Your task to perform on an android device: uninstall "PlayWell" Image 0: 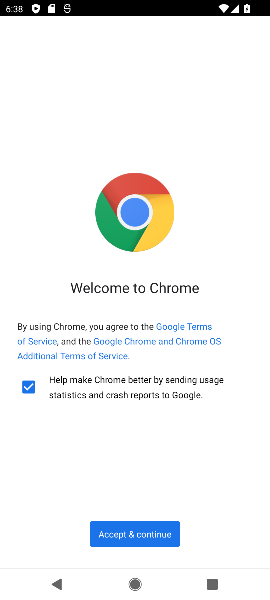
Step 0: press home button
Your task to perform on an android device: uninstall "PlayWell" Image 1: 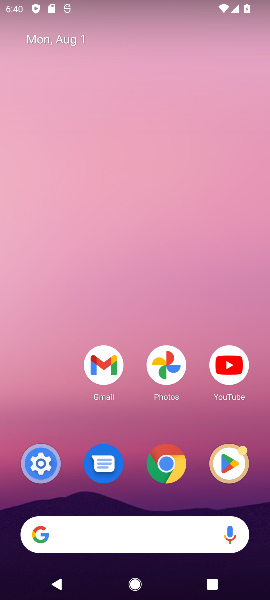
Step 1: click (234, 463)
Your task to perform on an android device: uninstall "PlayWell" Image 2: 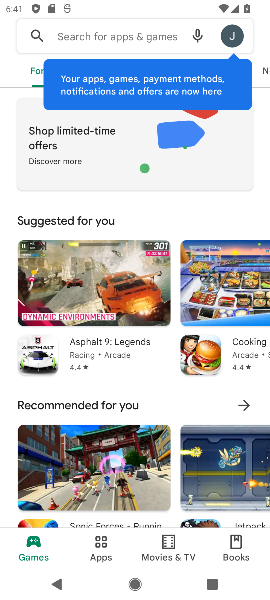
Step 2: click (154, 35)
Your task to perform on an android device: uninstall "PlayWell" Image 3: 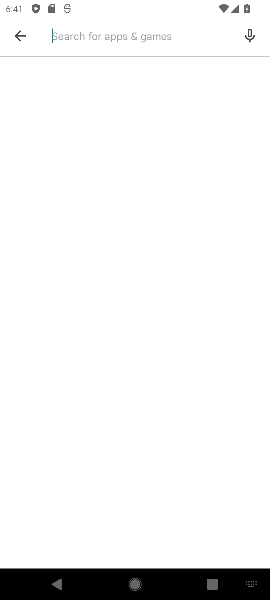
Step 3: type "playwell"
Your task to perform on an android device: uninstall "PlayWell" Image 4: 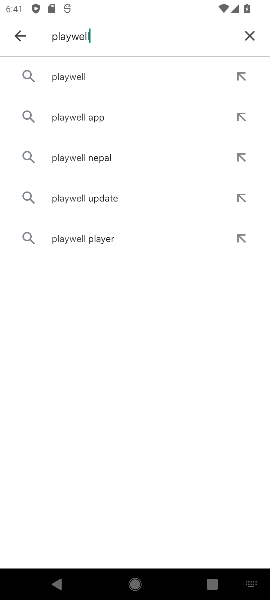
Step 4: click (148, 83)
Your task to perform on an android device: uninstall "PlayWell" Image 5: 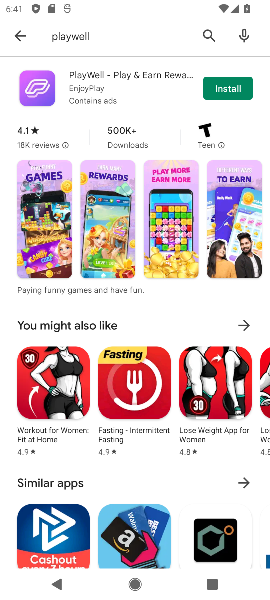
Step 5: click (212, 98)
Your task to perform on an android device: uninstall "PlayWell" Image 6: 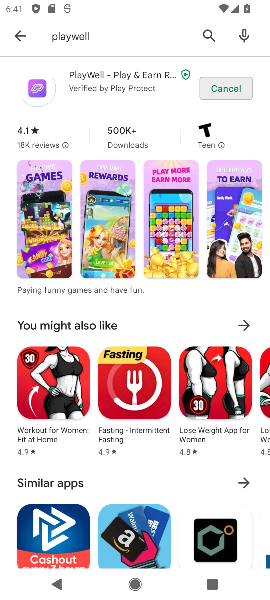
Step 6: task complete